Your task to perform on an android device: turn on translation in the chrome app Image 0: 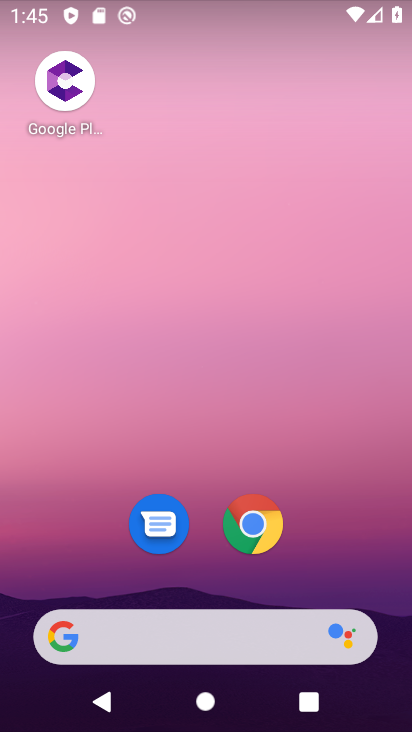
Step 0: click (255, 514)
Your task to perform on an android device: turn on translation in the chrome app Image 1: 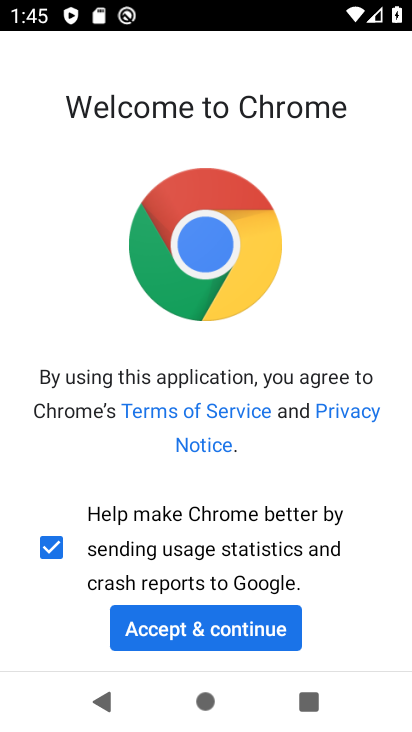
Step 1: click (263, 630)
Your task to perform on an android device: turn on translation in the chrome app Image 2: 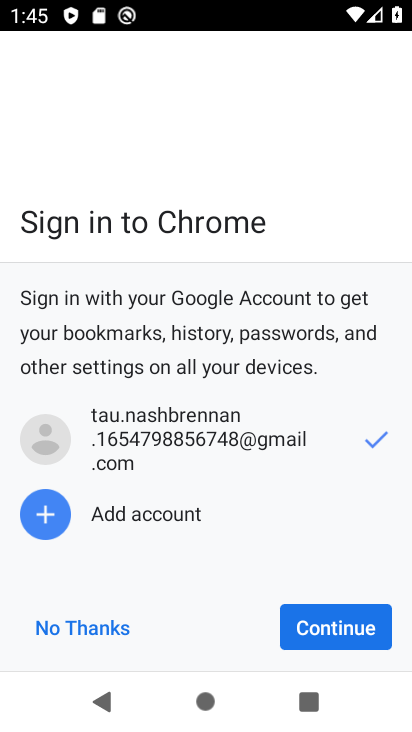
Step 2: click (314, 635)
Your task to perform on an android device: turn on translation in the chrome app Image 3: 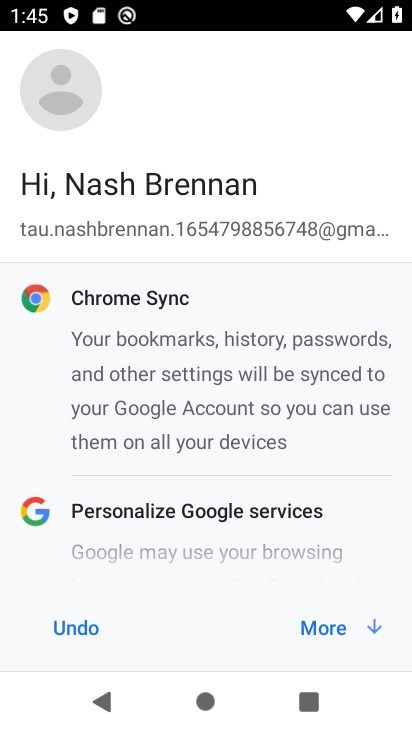
Step 3: click (324, 616)
Your task to perform on an android device: turn on translation in the chrome app Image 4: 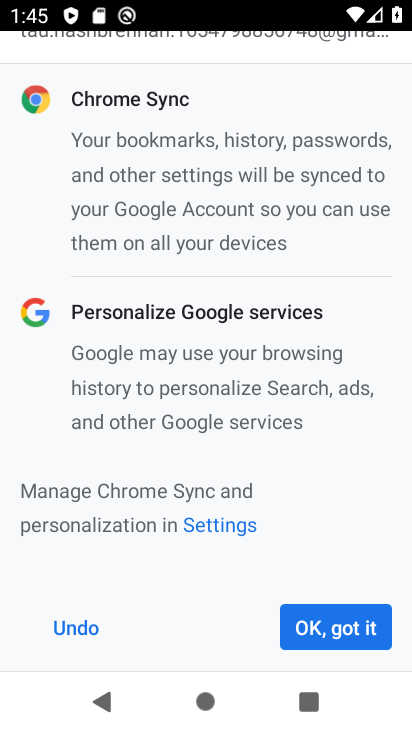
Step 4: click (337, 637)
Your task to perform on an android device: turn on translation in the chrome app Image 5: 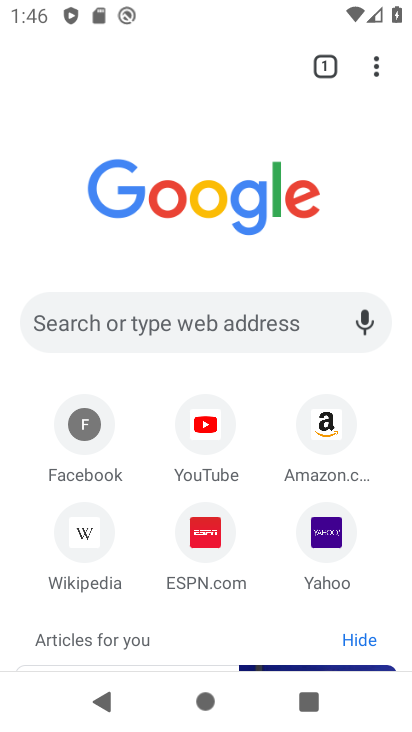
Step 5: click (370, 64)
Your task to perform on an android device: turn on translation in the chrome app Image 6: 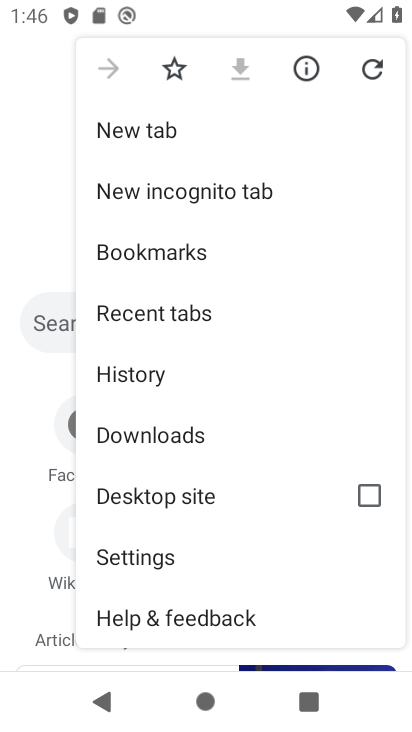
Step 6: drag from (207, 548) to (202, 278)
Your task to perform on an android device: turn on translation in the chrome app Image 7: 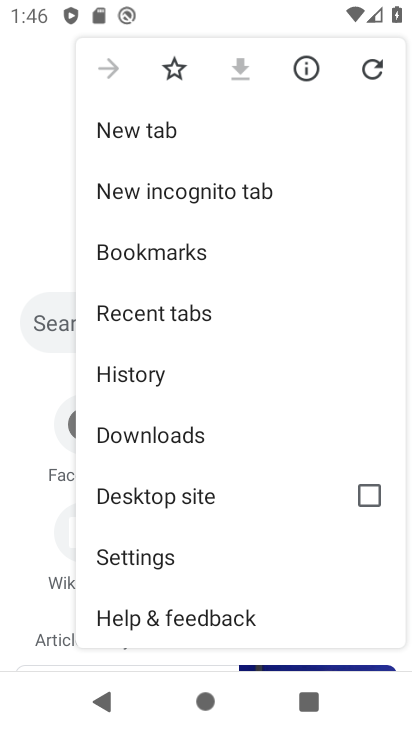
Step 7: click (151, 553)
Your task to perform on an android device: turn on translation in the chrome app Image 8: 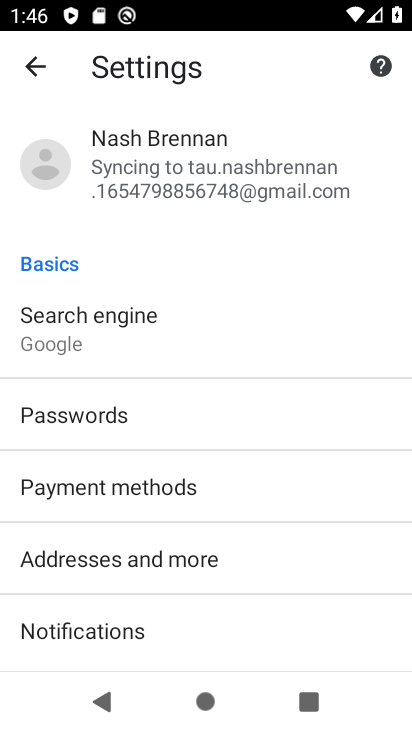
Step 8: drag from (249, 572) to (226, 203)
Your task to perform on an android device: turn on translation in the chrome app Image 9: 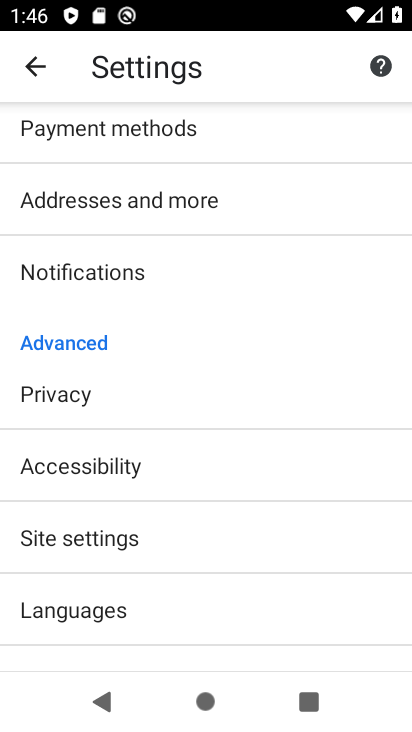
Step 9: click (107, 615)
Your task to perform on an android device: turn on translation in the chrome app Image 10: 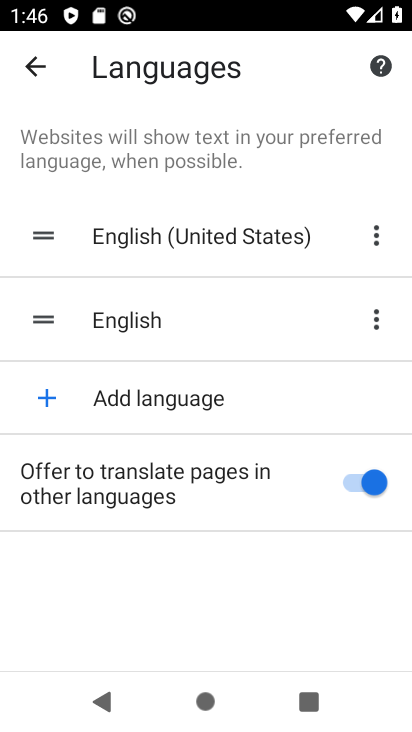
Step 10: task complete